Your task to perform on an android device: Where can I buy a nice beach tent? Image 0: 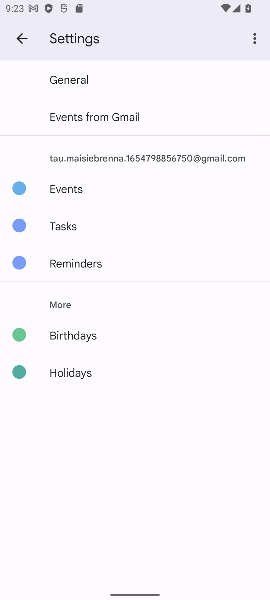
Step 0: press home button
Your task to perform on an android device: Where can I buy a nice beach tent? Image 1: 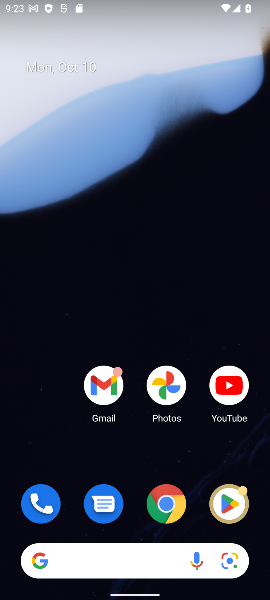
Step 1: click (170, 504)
Your task to perform on an android device: Where can I buy a nice beach tent? Image 2: 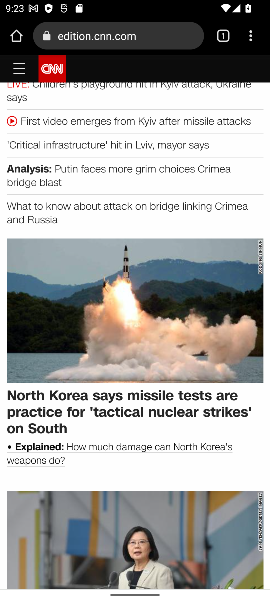
Step 2: click (135, 27)
Your task to perform on an android device: Where can I buy a nice beach tent? Image 3: 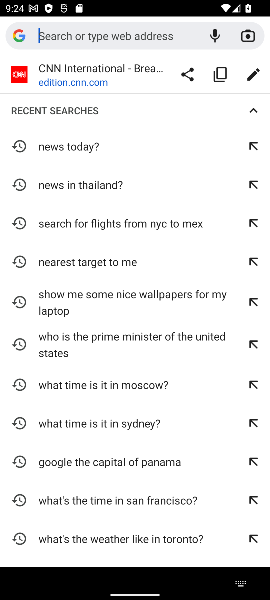
Step 3: type "nice beach tent?"
Your task to perform on an android device: Where can I buy a nice beach tent? Image 4: 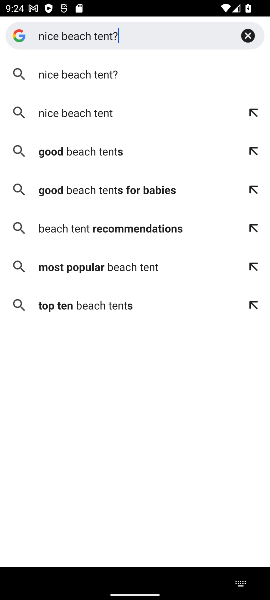
Step 4: click (76, 68)
Your task to perform on an android device: Where can I buy a nice beach tent? Image 5: 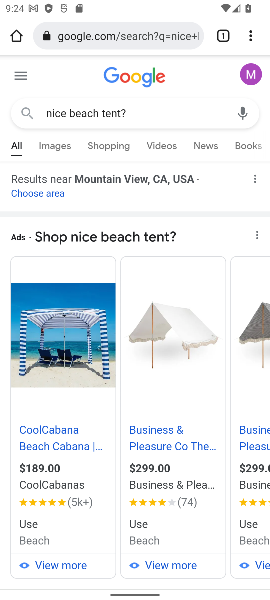
Step 5: drag from (119, 569) to (129, 246)
Your task to perform on an android device: Where can I buy a nice beach tent? Image 6: 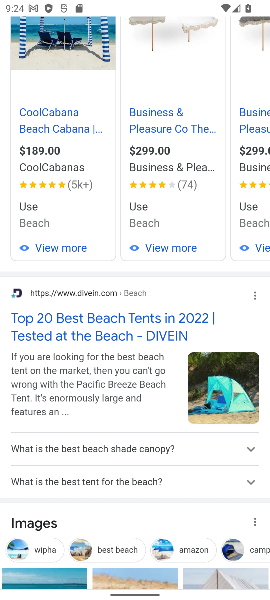
Step 6: drag from (126, 507) to (128, 211)
Your task to perform on an android device: Where can I buy a nice beach tent? Image 7: 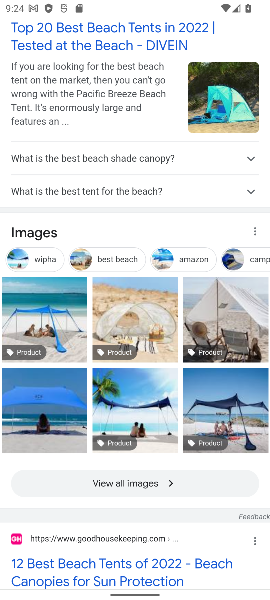
Step 7: drag from (128, 211) to (129, 458)
Your task to perform on an android device: Where can I buy a nice beach tent? Image 8: 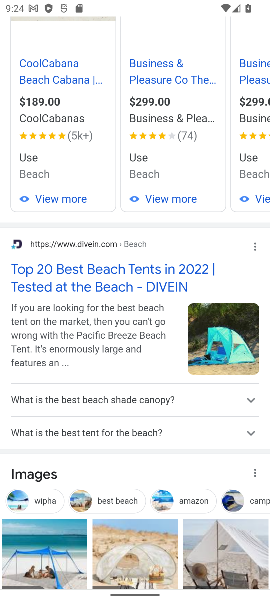
Step 8: click (42, 61)
Your task to perform on an android device: Where can I buy a nice beach tent? Image 9: 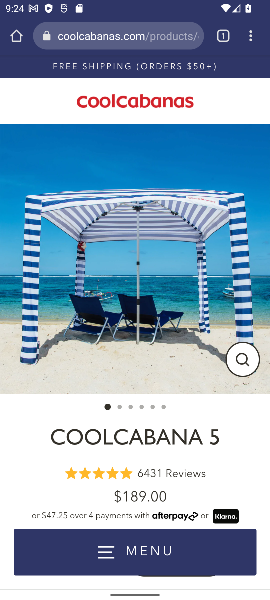
Step 9: task complete